Your task to perform on an android device: Open Google Chrome and click the shortcut for Amazon.com Image 0: 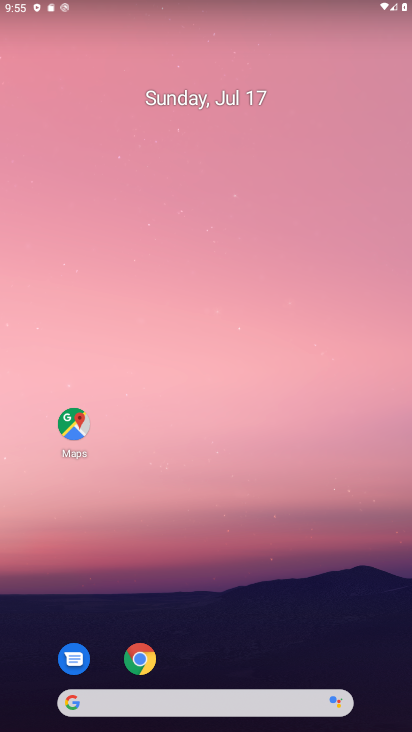
Step 0: click (138, 658)
Your task to perform on an android device: Open Google Chrome and click the shortcut for Amazon.com Image 1: 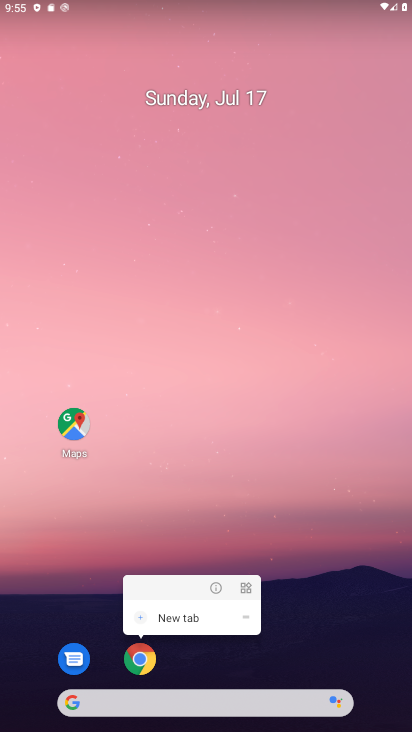
Step 1: click (140, 661)
Your task to perform on an android device: Open Google Chrome and click the shortcut for Amazon.com Image 2: 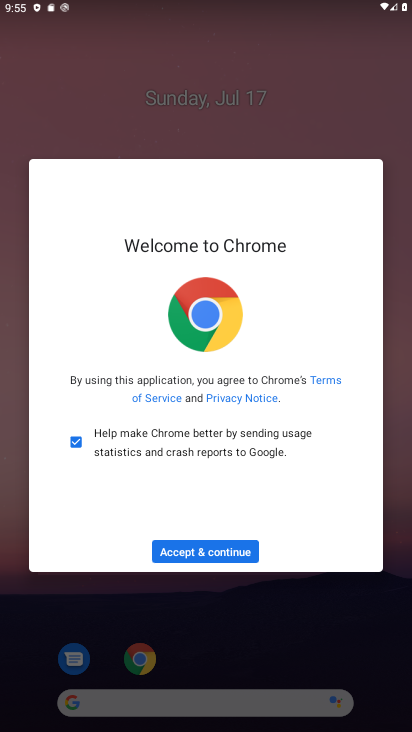
Step 2: click (180, 549)
Your task to perform on an android device: Open Google Chrome and click the shortcut for Amazon.com Image 3: 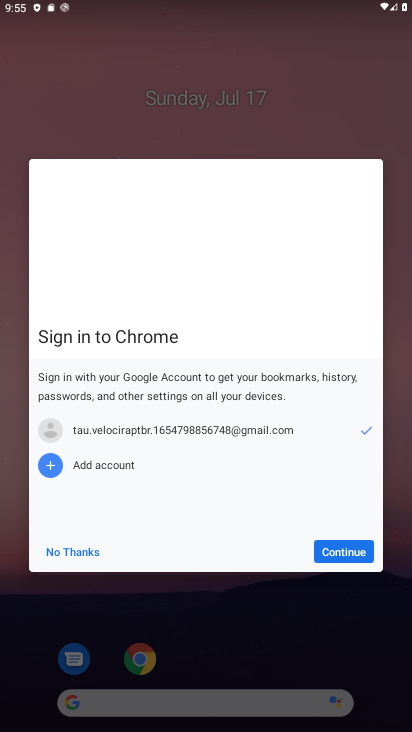
Step 3: click (344, 543)
Your task to perform on an android device: Open Google Chrome and click the shortcut for Amazon.com Image 4: 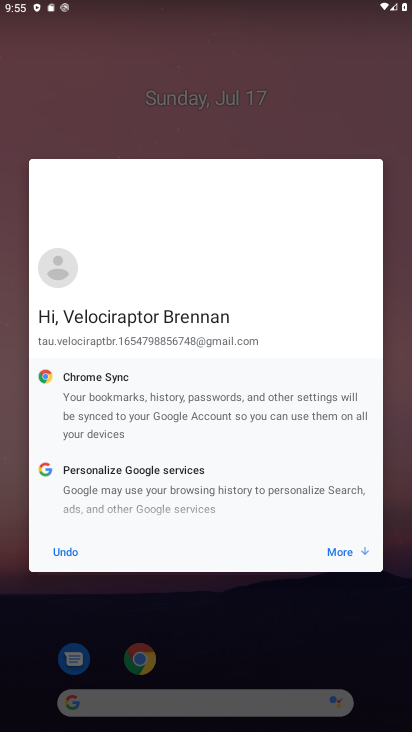
Step 4: click (335, 550)
Your task to perform on an android device: Open Google Chrome and click the shortcut for Amazon.com Image 5: 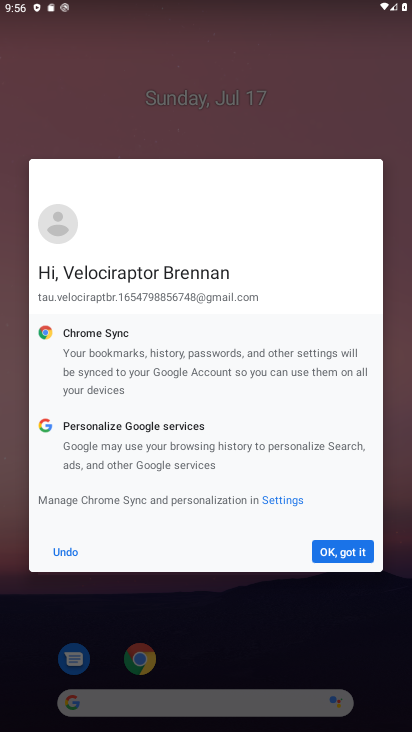
Step 5: click (335, 553)
Your task to perform on an android device: Open Google Chrome and click the shortcut for Amazon.com Image 6: 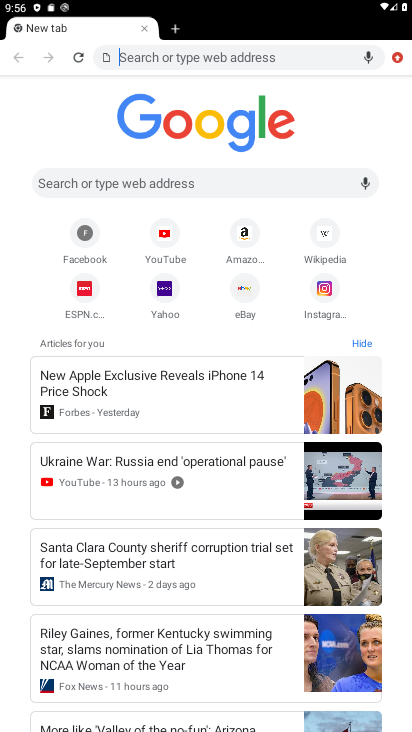
Step 6: click (246, 240)
Your task to perform on an android device: Open Google Chrome and click the shortcut for Amazon.com Image 7: 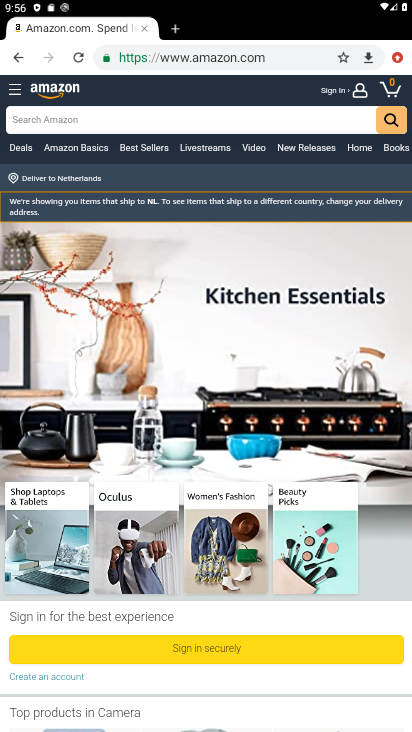
Step 7: task complete